Your task to perform on an android device: What's the news in the Dominican Republic? Image 0: 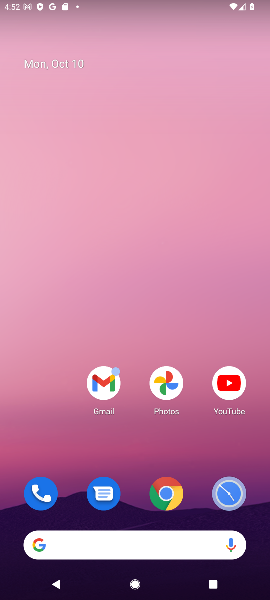
Step 0: click (102, 551)
Your task to perform on an android device: What's the news in the Dominican Republic? Image 1: 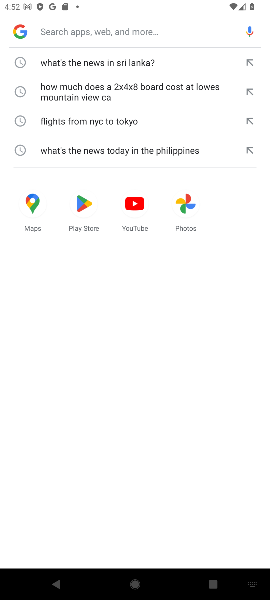
Step 1: type "What's the news in the Dominican Republic?"
Your task to perform on an android device: What's the news in the Dominican Republic? Image 2: 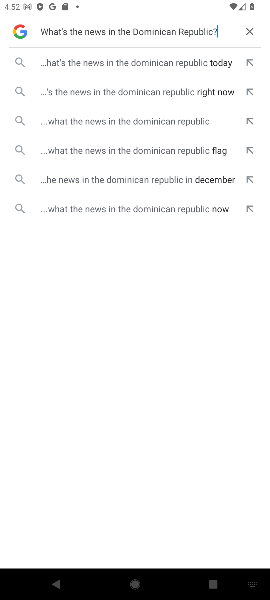
Step 2: click (122, 71)
Your task to perform on an android device: What's the news in the Dominican Republic? Image 3: 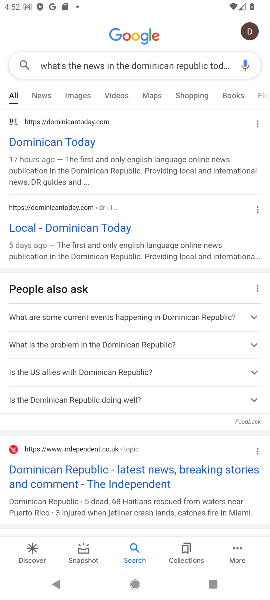
Step 3: click (32, 138)
Your task to perform on an android device: What's the news in the Dominican Republic? Image 4: 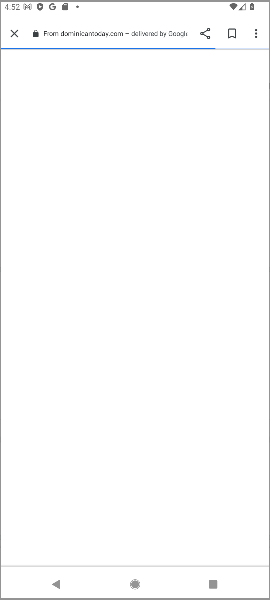
Step 4: task complete